Your task to perform on an android device: Is it going to rain this weekend? Image 0: 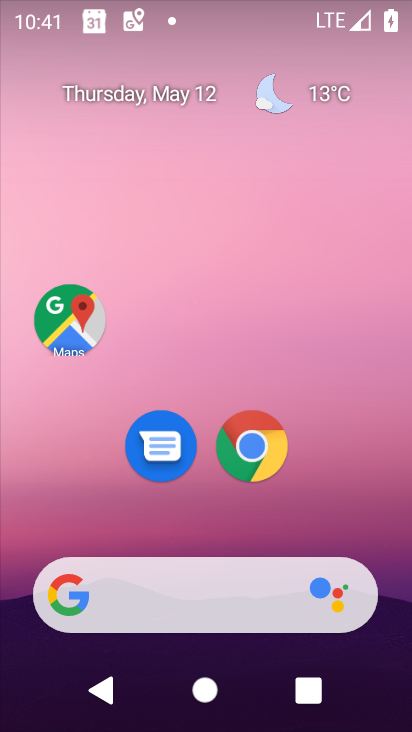
Step 0: drag from (238, 601) to (301, 87)
Your task to perform on an android device: Is it going to rain this weekend? Image 1: 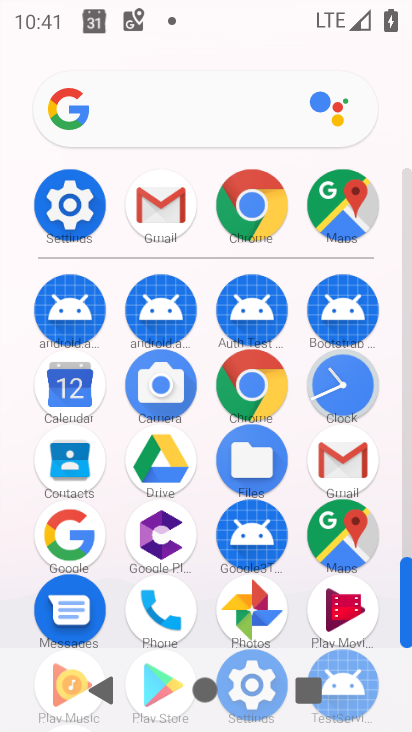
Step 1: click (263, 404)
Your task to perform on an android device: Is it going to rain this weekend? Image 2: 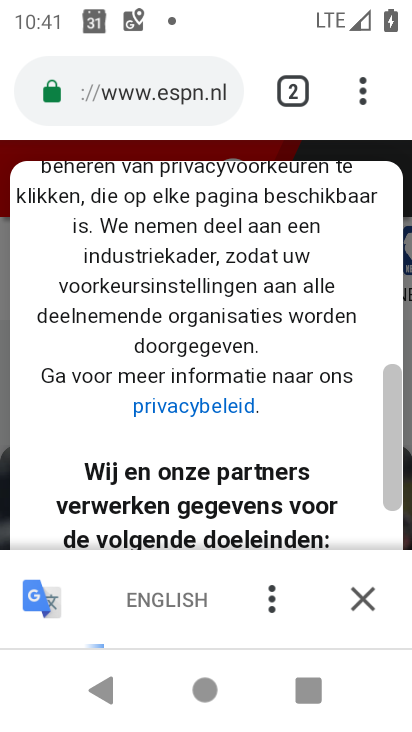
Step 2: click (170, 95)
Your task to perform on an android device: Is it going to rain this weekend? Image 3: 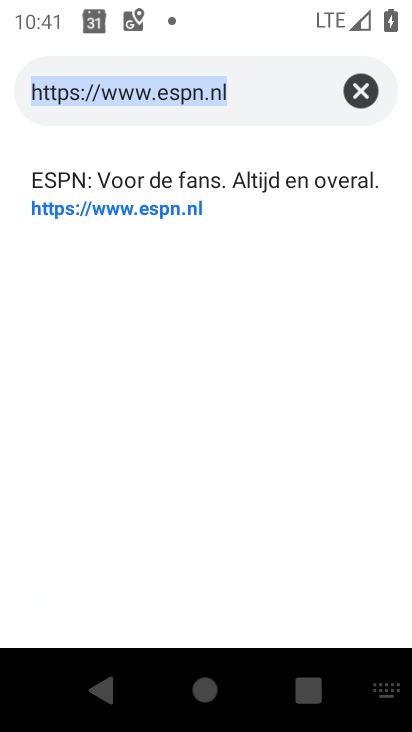
Step 3: click (372, 89)
Your task to perform on an android device: Is it going to rain this weekend? Image 4: 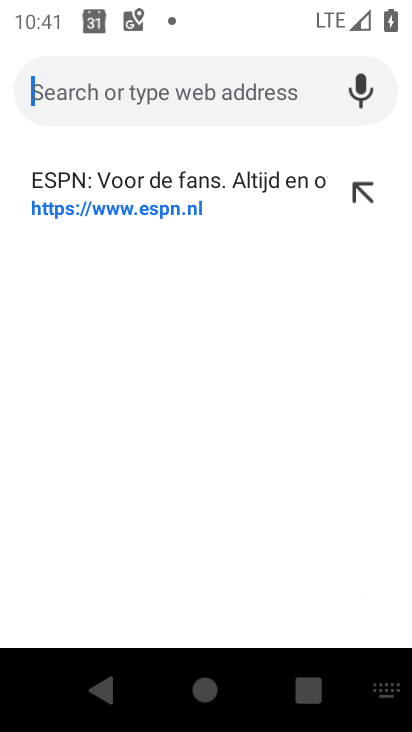
Step 4: type "going to rain this weekend"
Your task to perform on an android device: Is it going to rain this weekend? Image 5: 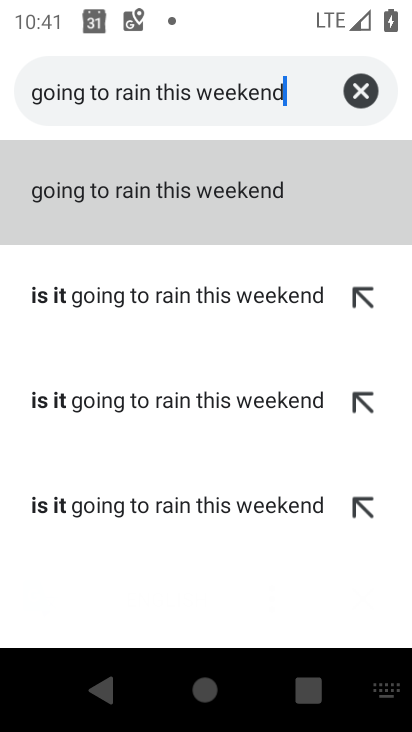
Step 5: click (199, 205)
Your task to perform on an android device: Is it going to rain this weekend? Image 6: 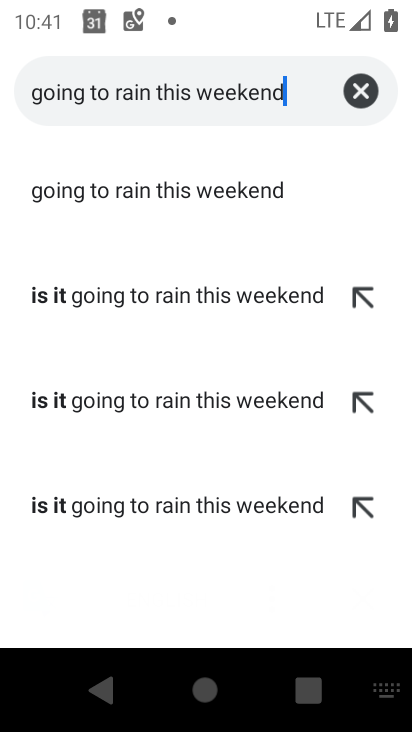
Step 6: click (261, 198)
Your task to perform on an android device: Is it going to rain this weekend? Image 7: 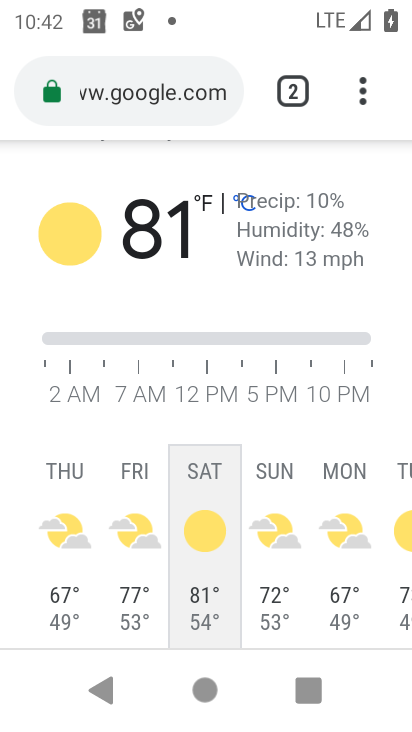
Step 7: task complete